Your task to perform on an android device: turn pop-ups off in chrome Image 0: 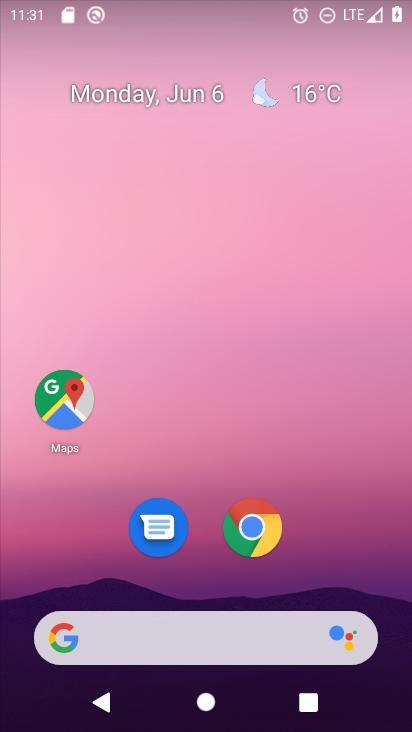
Step 0: drag from (350, 530) to (333, 259)
Your task to perform on an android device: turn pop-ups off in chrome Image 1: 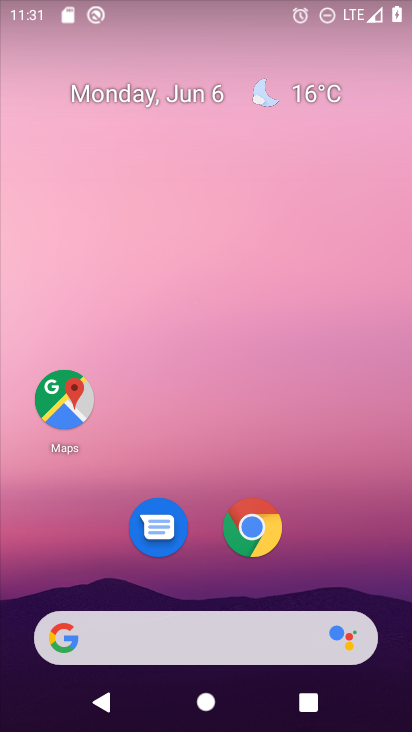
Step 1: drag from (378, 572) to (361, 159)
Your task to perform on an android device: turn pop-ups off in chrome Image 2: 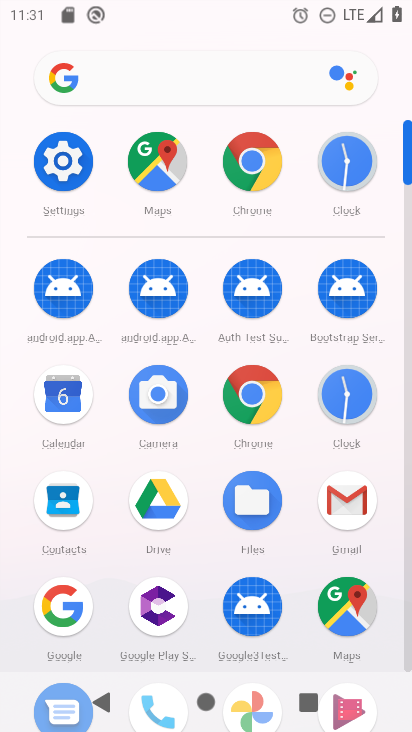
Step 2: click (260, 407)
Your task to perform on an android device: turn pop-ups off in chrome Image 3: 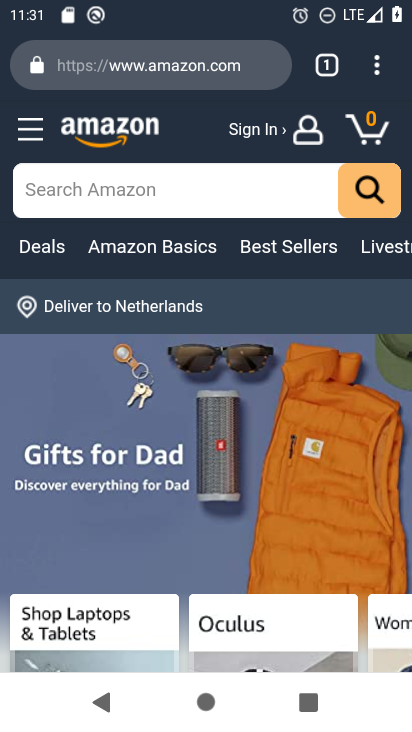
Step 3: click (378, 76)
Your task to perform on an android device: turn pop-ups off in chrome Image 4: 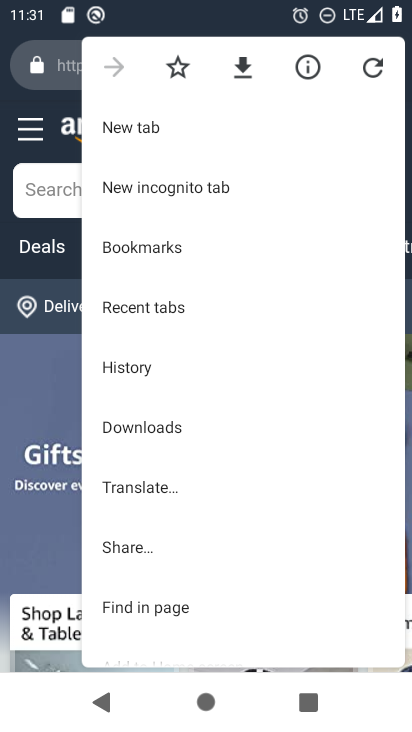
Step 4: drag from (317, 425) to (316, 288)
Your task to perform on an android device: turn pop-ups off in chrome Image 5: 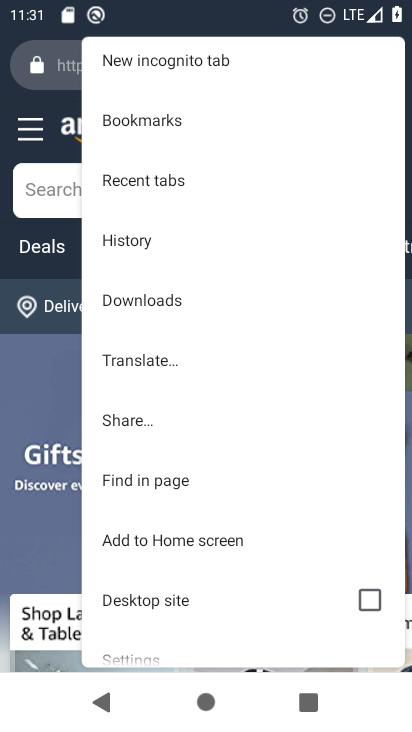
Step 5: drag from (313, 570) to (315, 428)
Your task to perform on an android device: turn pop-ups off in chrome Image 6: 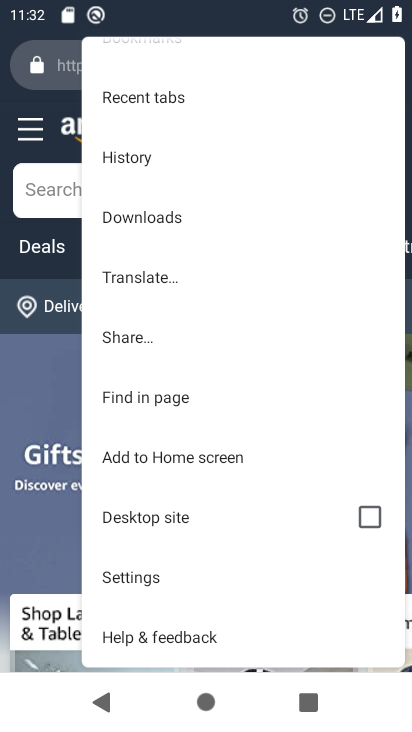
Step 6: drag from (311, 528) to (302, 303)
Your task to perform on an android device: turn pop-ups off in chrome Image 7: 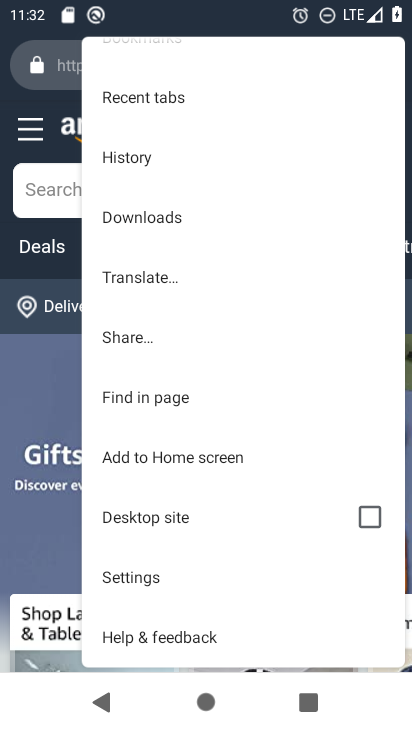
Step 7: click (153, 579)
Your task to perform on an android device: turn pop-ups off in chrome Image 8: 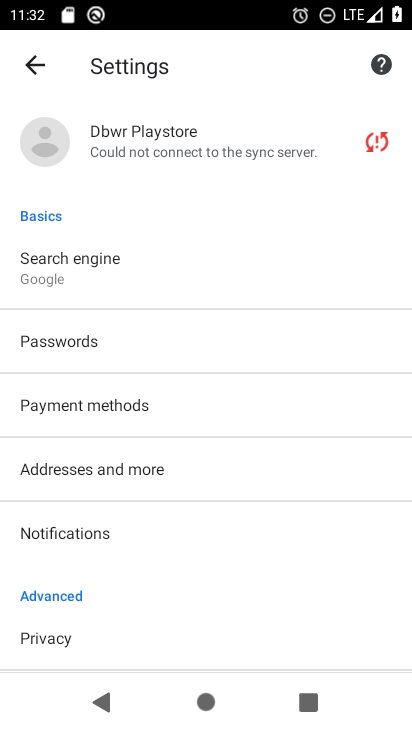
Step 8: drag from (277, 528) to (282, 295)
Your task to perform on an android device: turn pop-ups off in chrome Image 9: 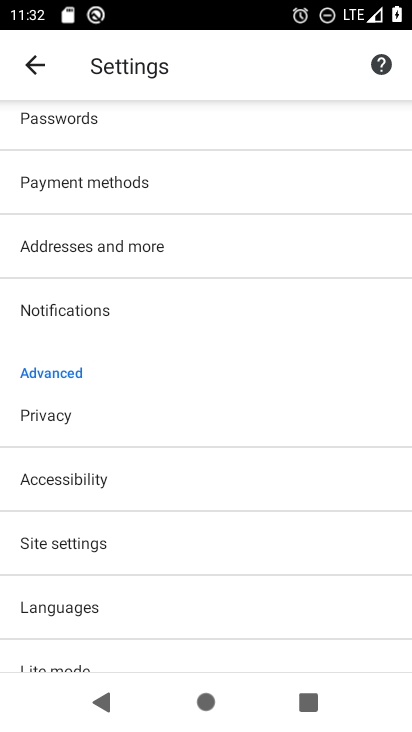
Step 9: drag from (273, 500) to (269, 330)
Your task to perform on an android device: turn pop-ups off in chrome Image 10: 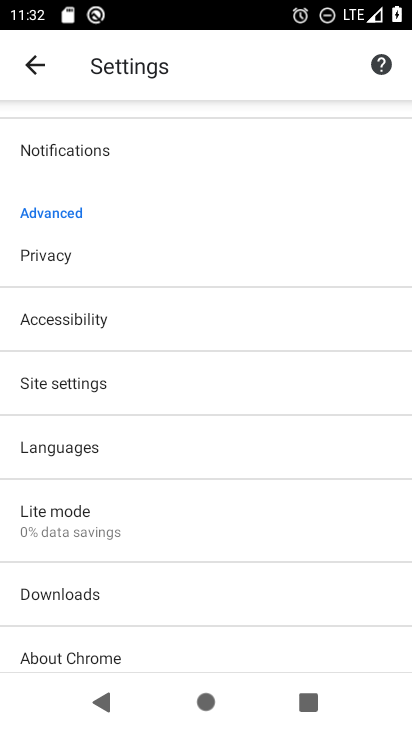
Step 10: drag from (286, 492) to (284, 333)
Your task to perform on an android device: turn pop-ups off in chrome Image 11: 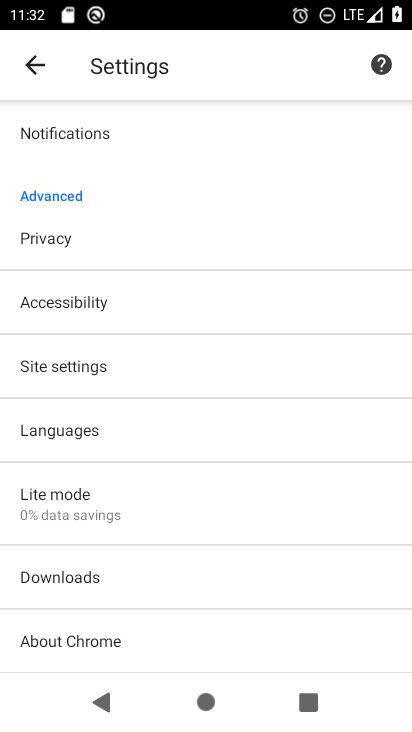
Step 11: drag from (282, 542) to (283, 316)
Your task to perform on an android device: turn pop-ups off in chrome Image 12: 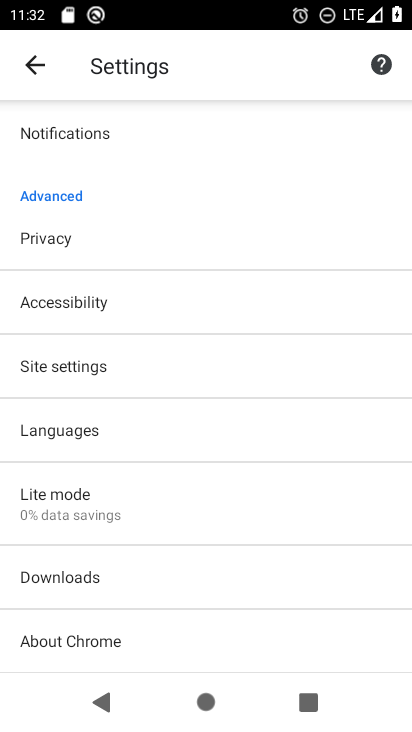
Step 12: drag from (284, 549) to (283, 333)
Your task to perform on an android device: turn pop-ups off in chrome Image 13: 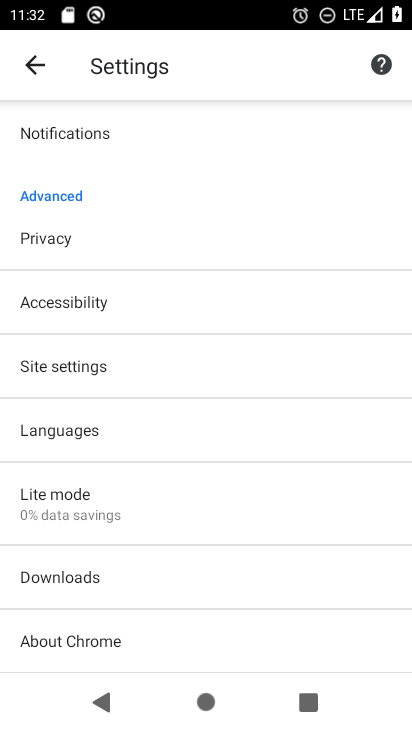
Step 13: drag from (284, 265) to (285, 378)
Your task to perform on an android device: turn pop-ups off in chrome Image 14: 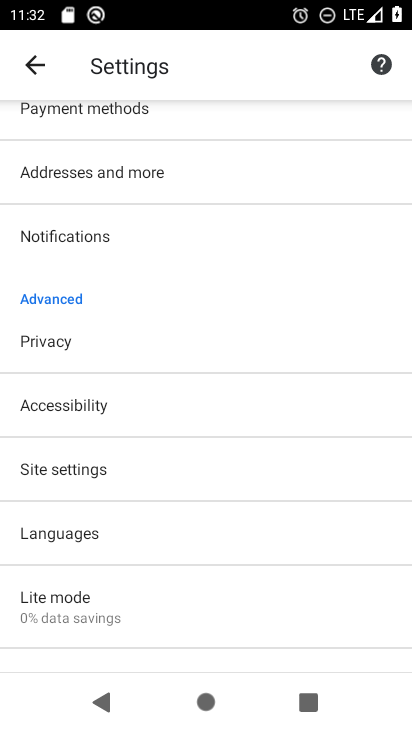
Step 14: click (187, 477)
Your task to perform on an android device: turn pop-ups off in chrome Image 15: 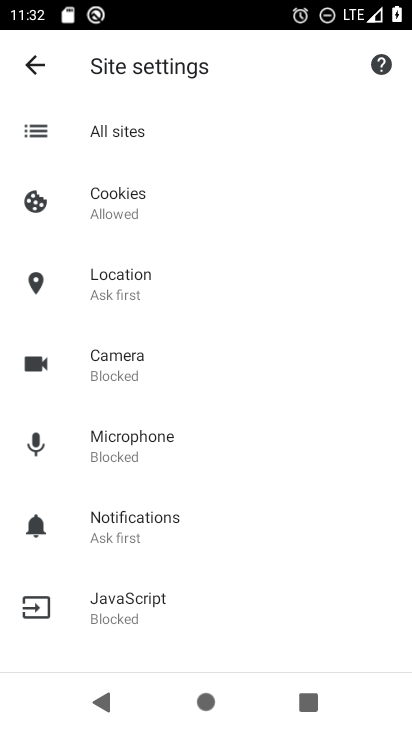
Step 15: drag from (318, 528) to (298, 366)
Your task to perform on an android device: turn pop-ups off in chrome Image 16: 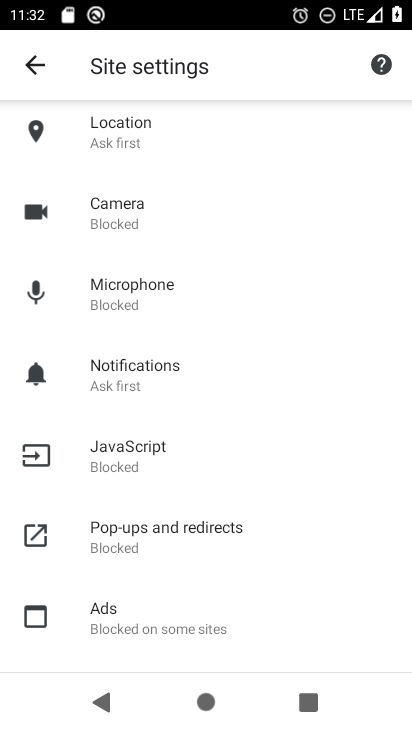
Step 16: click (178, 551)
Your task to perform on an android device: turn pop-ups off in chrome Image 17: 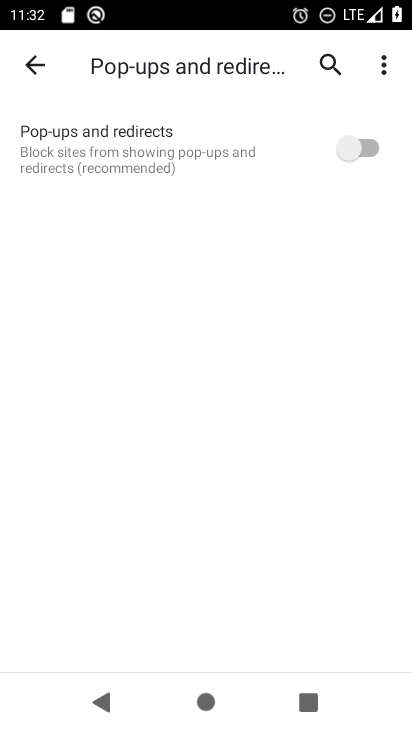
Step 17: task complete